Your task to perform on an android device: Open Amazon Image 0: 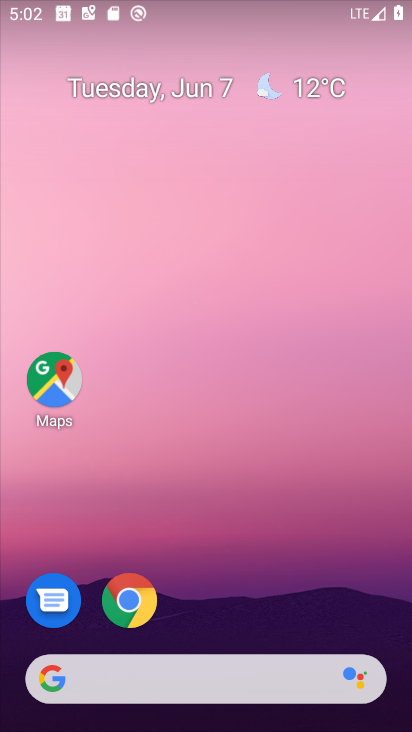
Step 0: drag from (312, 514) to (302, 73)
Your task to perform on an android device: Open Amazon Image 1: 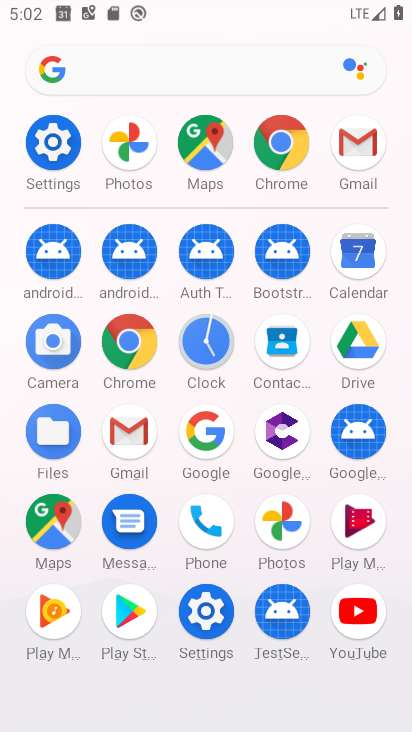
Step 1: click (280, 126)
Your task to perform on an android device: Open Amazon Image 2: 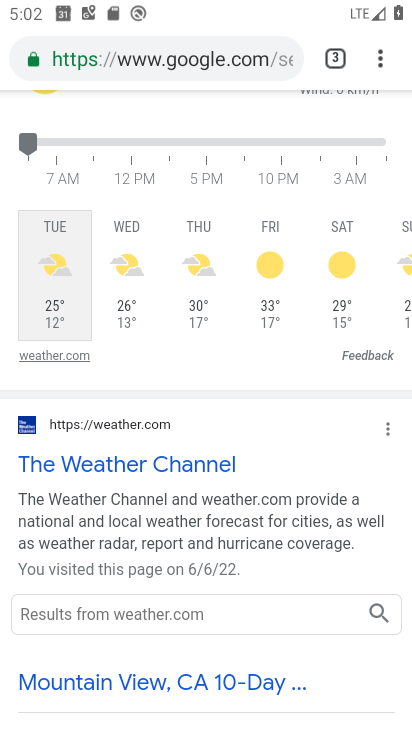
Step 2: click (207, 53)
Your task to perform on an android device: Open Amazon Image 3: 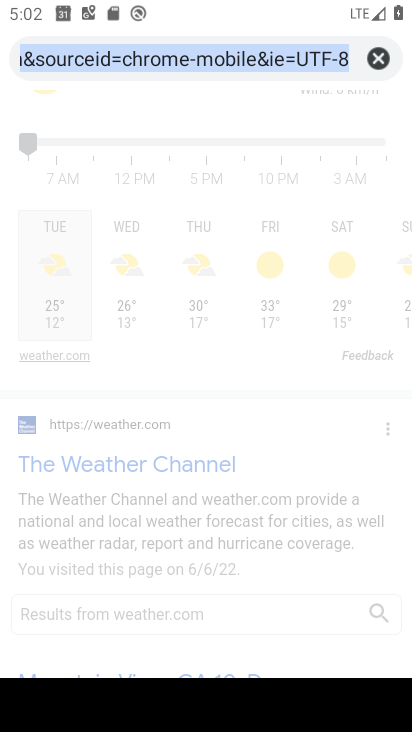
Step 3: type "amazon"
Your task to perform on an android device: Open Amazon Image 4: 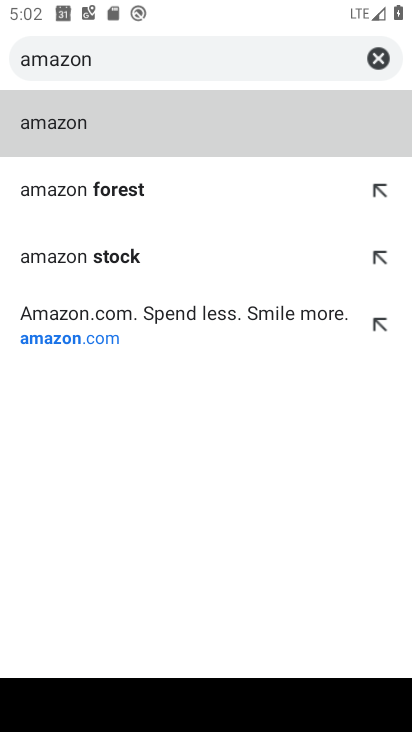
Step 4: click (36, 131)
Your task to perform on an android device: Open Amazon Image 5: 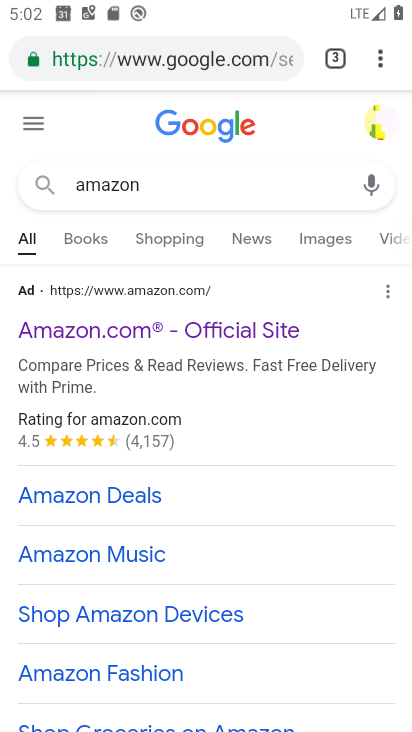
Step 5: drag from (228, 588) to (251, 42)
Your task to perform on an android device: Open Amazon Image 6: 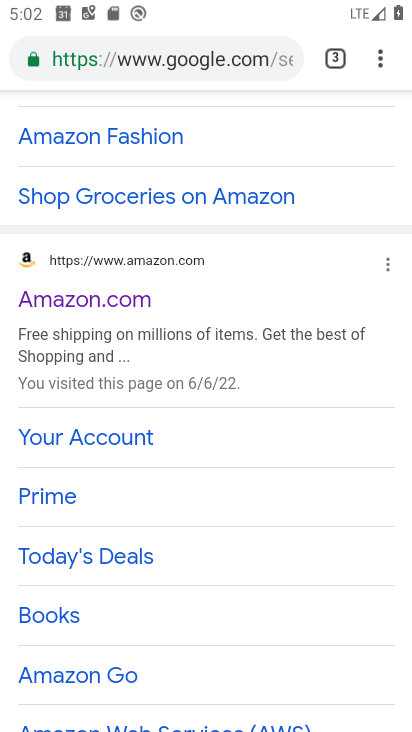
Step 6: click (121, 298)
Your task to perform on an android device: Open Amazon Image 7: 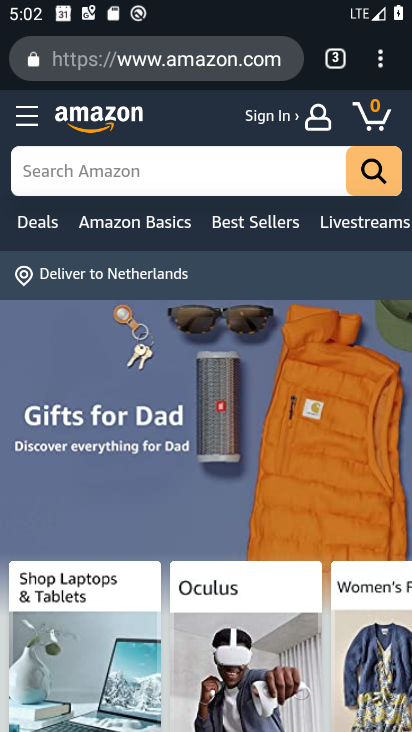
Step 7: task complete